Your task to perform on an android device: Search for vegetarian restaurants on Maps Image 0: 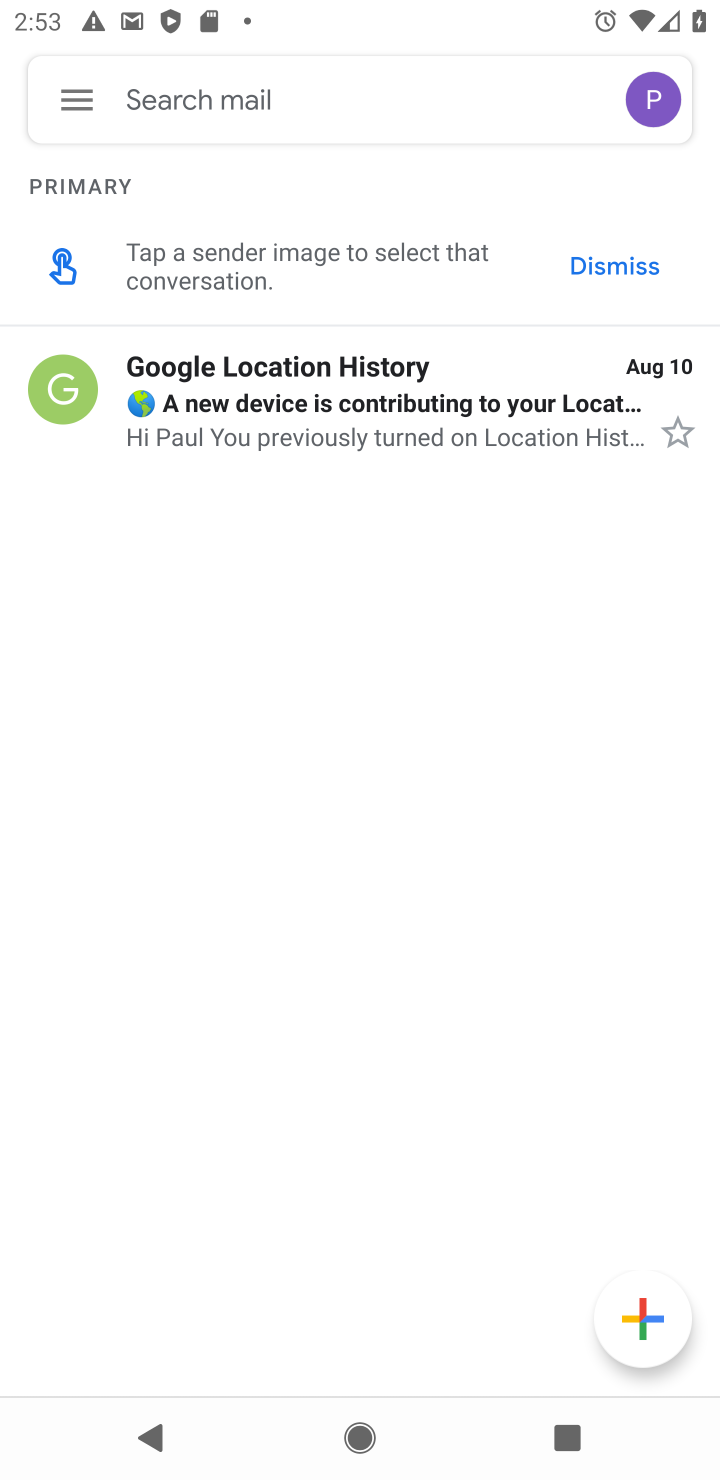
Step 0: press home button
Your task to perform on an android device: Search for vegetarian restaurants on Maps Image 1: 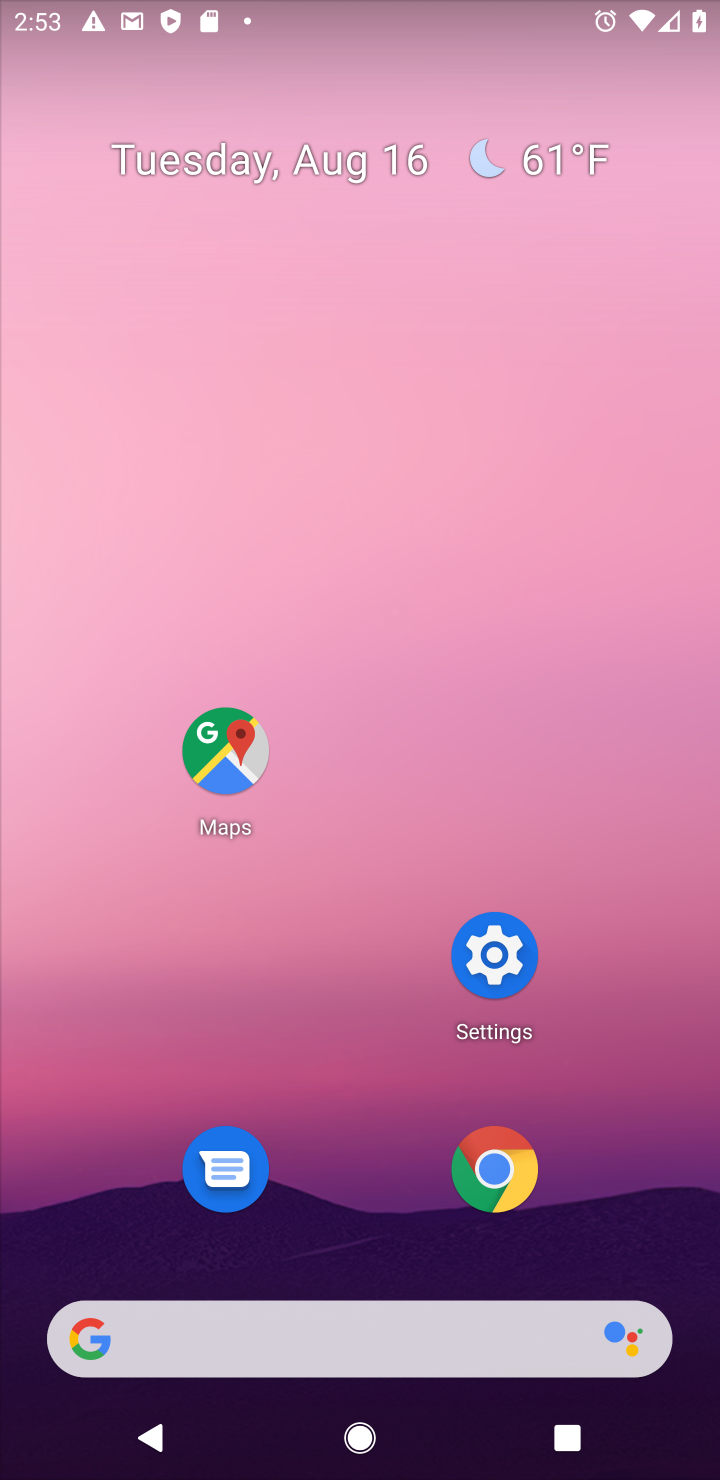
Step 1: click (232, 743)
Your task to perform on an android device: Search for vegetarian restaurants on Maps Image 2: 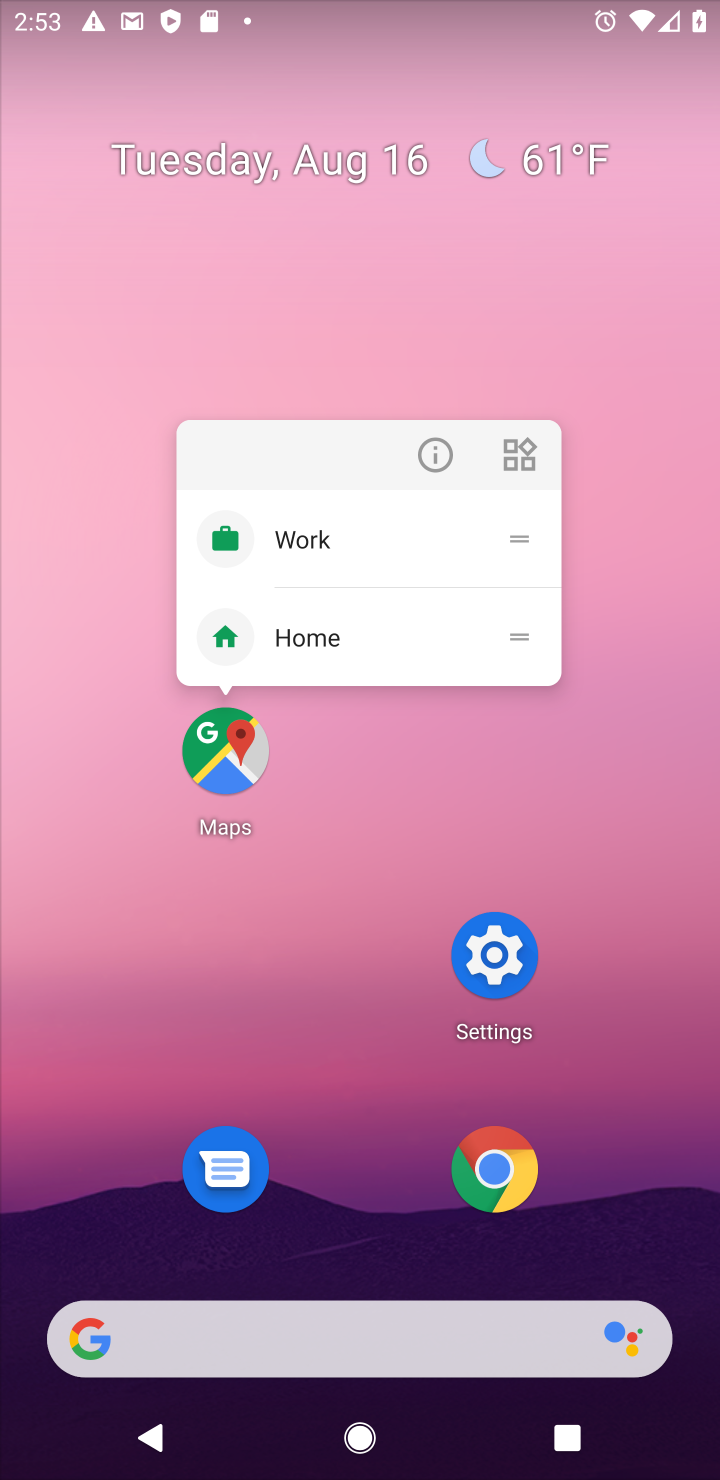
Step 2: click (232, 741)
Your task to perform on an android device: Search for vegetarian restaurants on Maps Image 3: 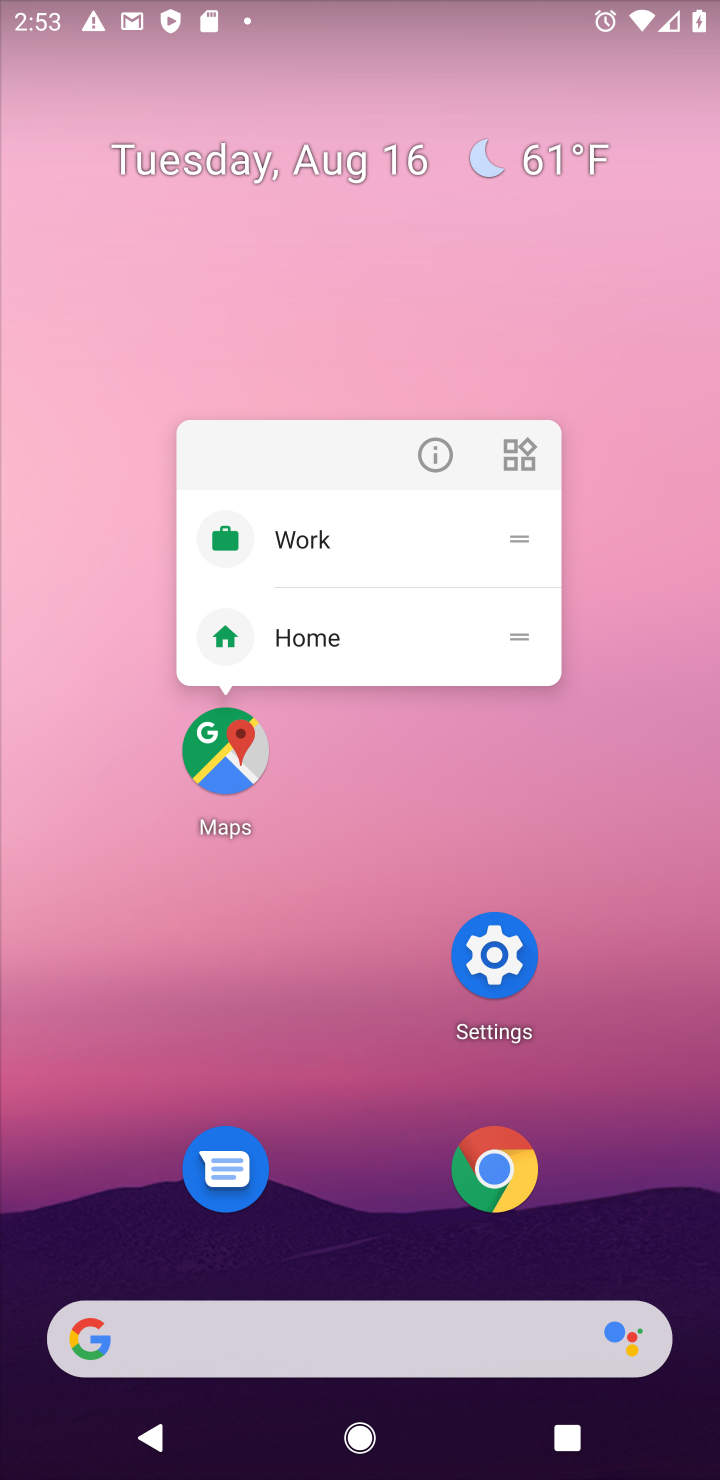
Step 3: click (232, 755)
Your task to perform on an android device: Search for vegetarian restaurants on Maps Image 4: 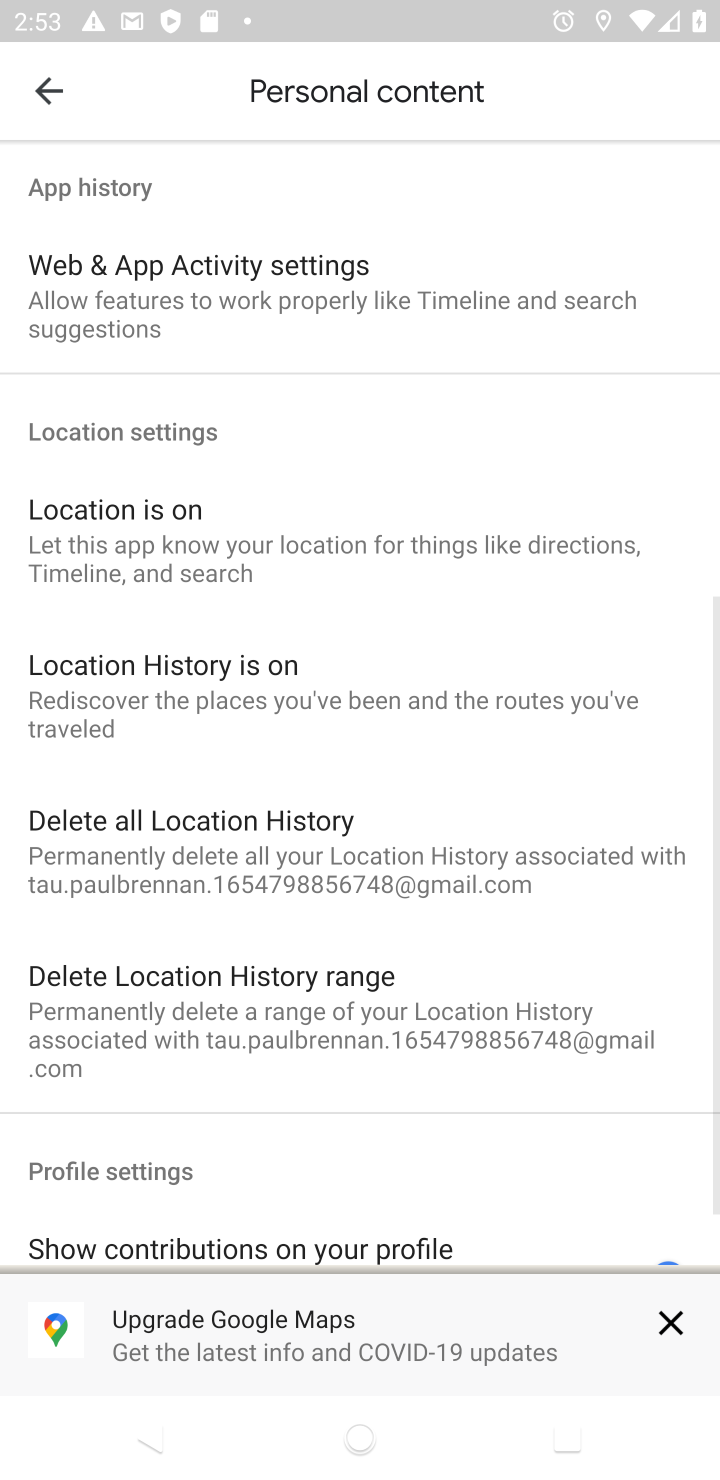
Step 4: press back button
Your task to perform on an android device: Search for vegetarian restaurants on Maps Image 5: 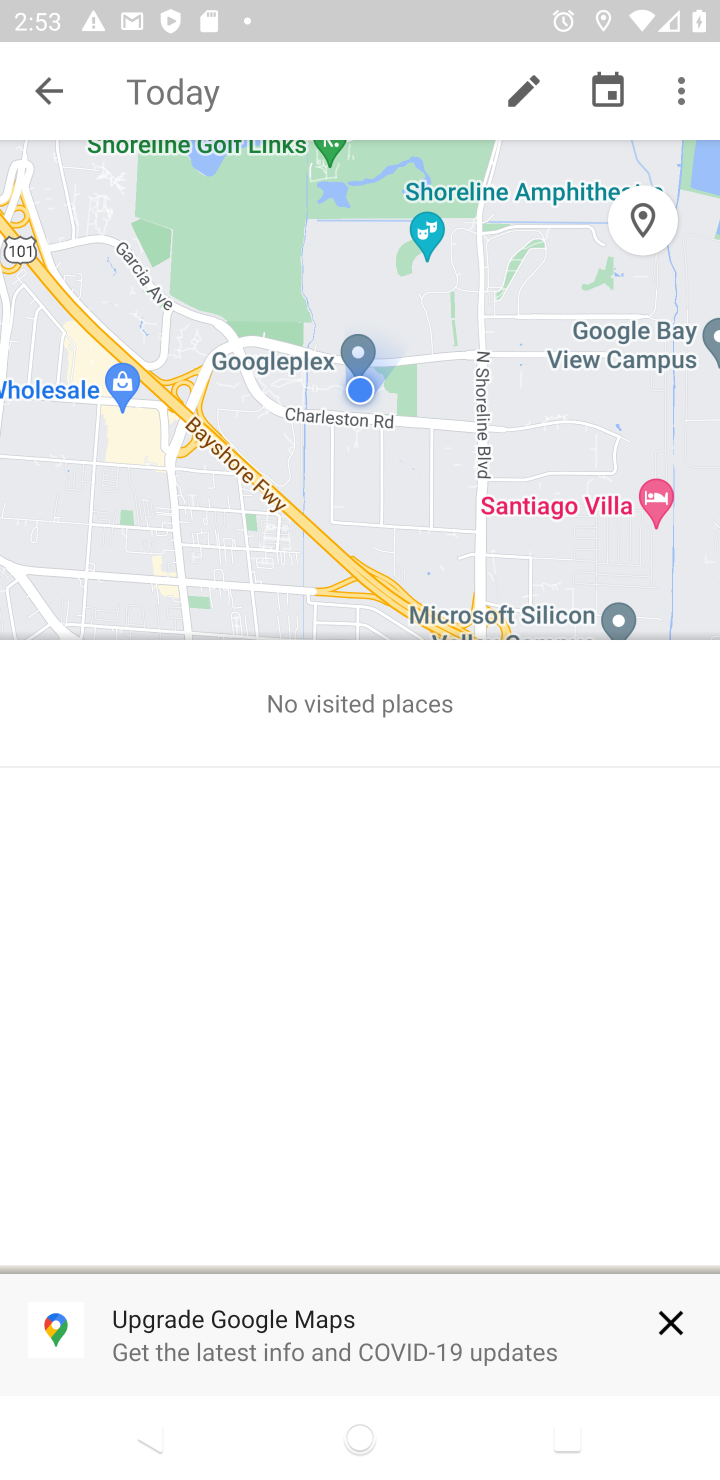
Step 5: press back button
Your task to perform on an android device: Search for vegetarian restaurants on Maps Image 6: 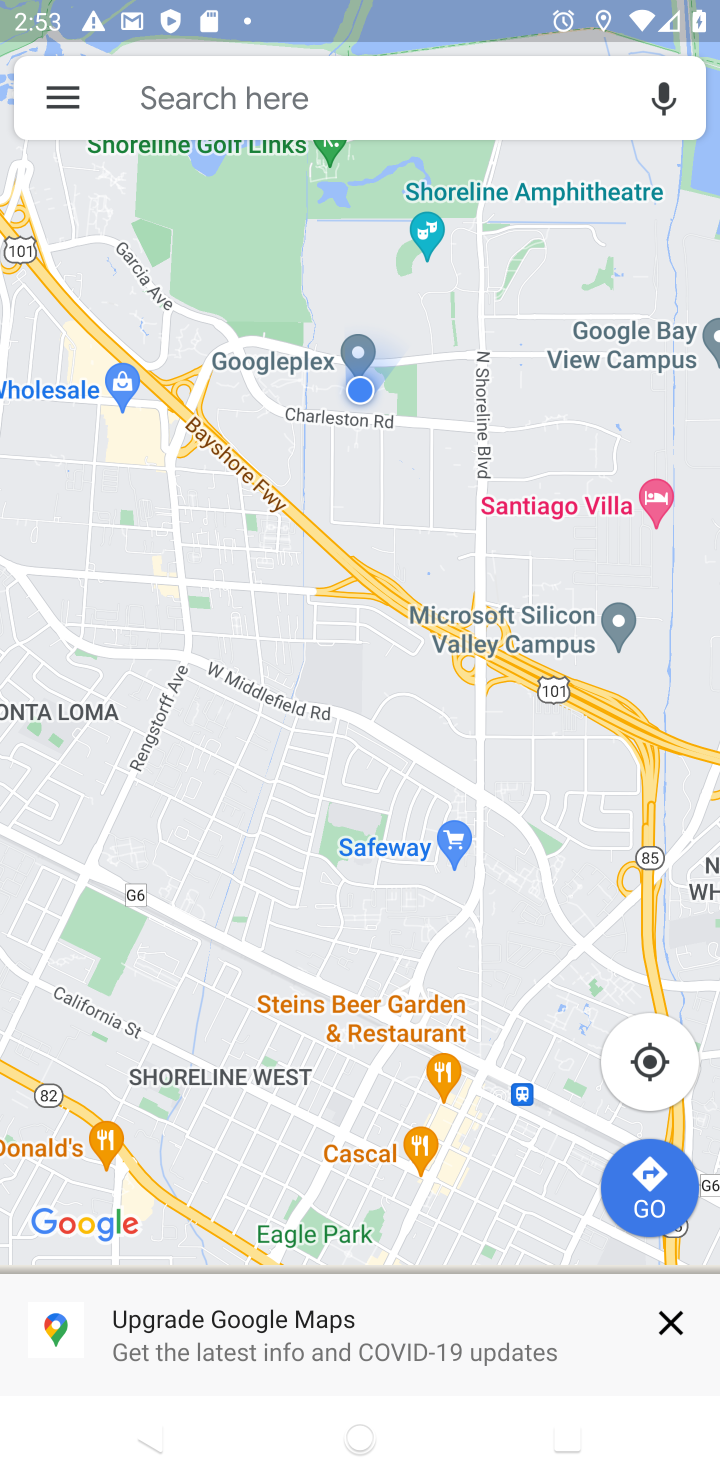
Step 6: click (262, 95)
Your task to perform on an android device: Search for vegetarian restaurants on Maps Image 7: 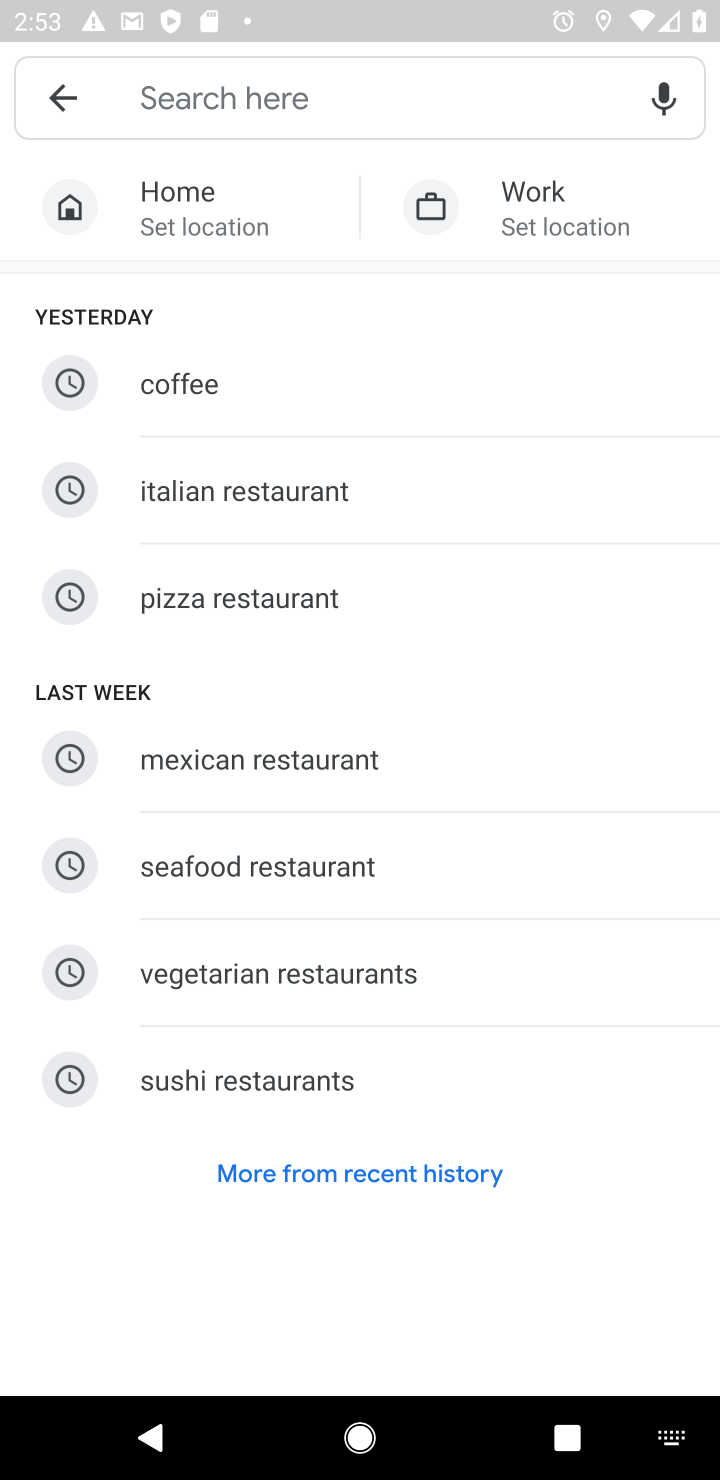
Step 7: click (263, 961)
Your task to perform on an android device: Search for vegetarian restaurants on Maps Image 8: 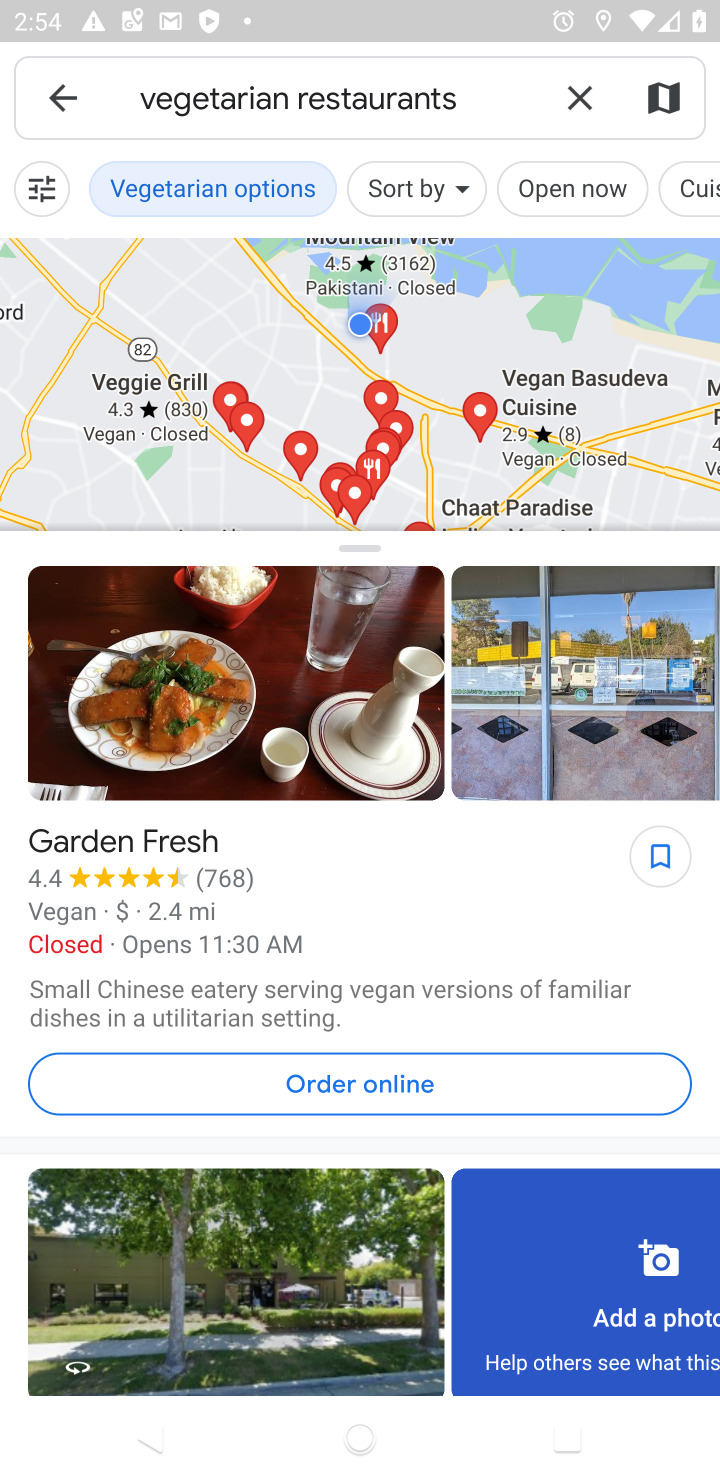
Step 8: task complete